Your task to perform on an android device: Open settings Image 0: 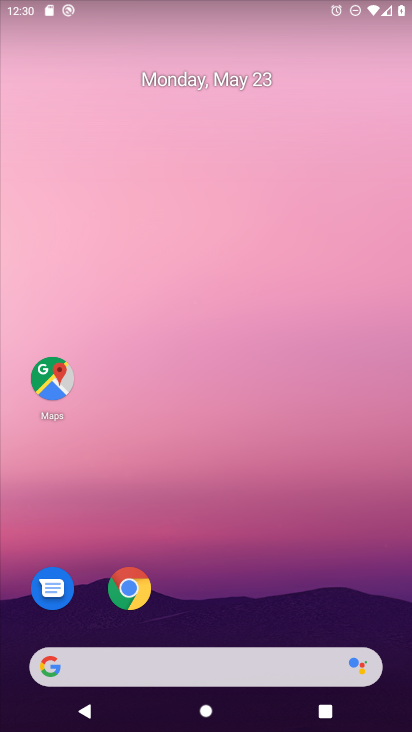
Step 0: drag from (257, 587) to (238, 173)
Your task to perform on an android device: Open settings Image 1: 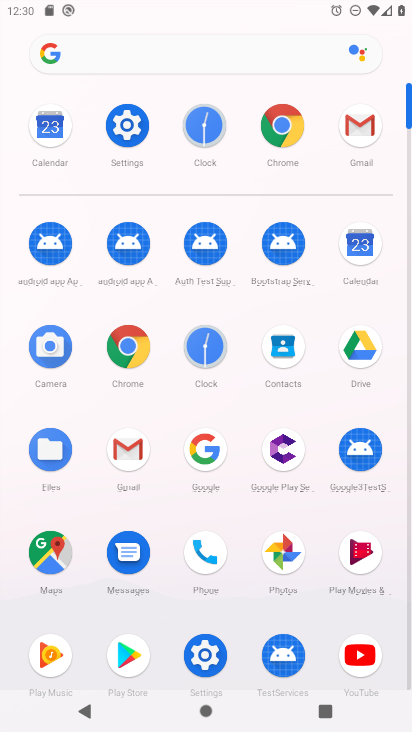
Step 1: click (210, 656)
Your task to perform on an android device: Open settings Image 2: 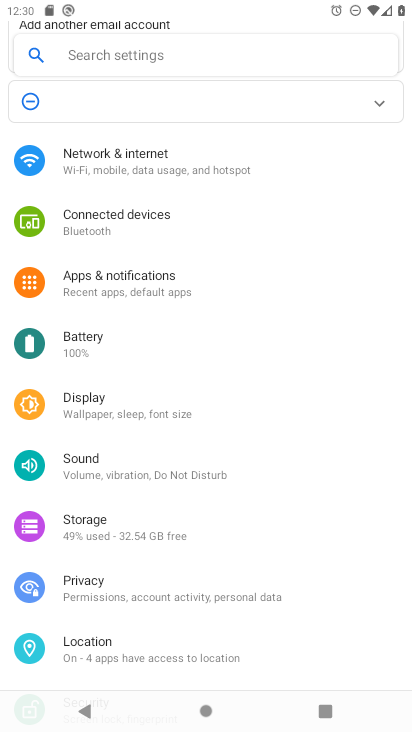
Step 2: task complete